Your task to perform on an android device: Show me recent news Image 0: 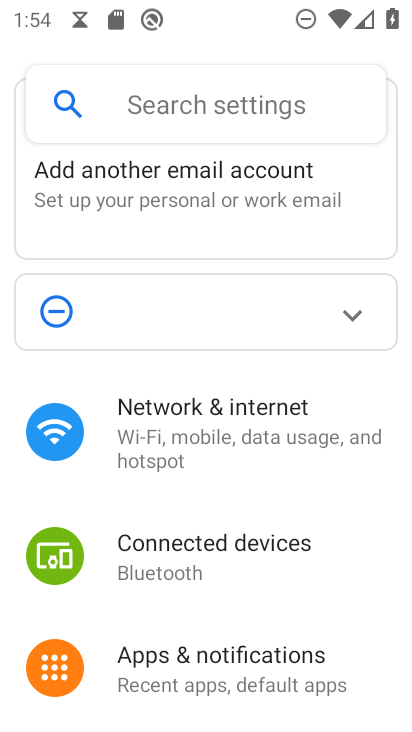
Step 0: press home button
Your task to perform on an android device: Show me recent news Image 1: 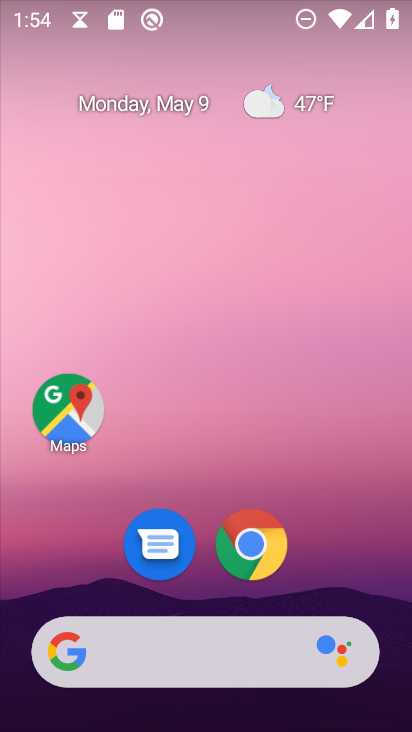
Step 1: drag from (375, 512) to (402, 69)
Your task to perform on an android device: Show me recent news Image 2: 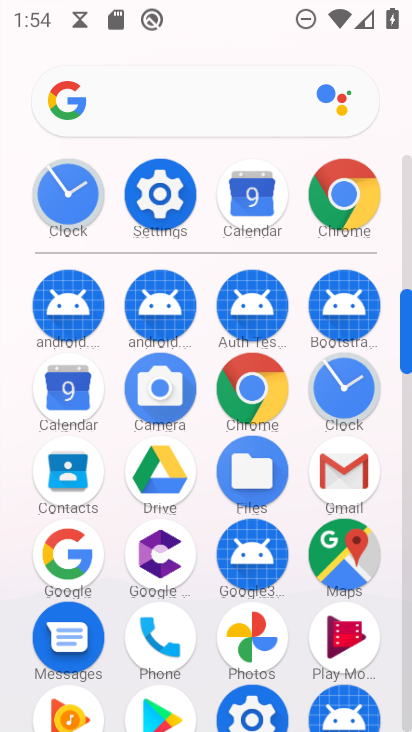
Step 2: click (346, 206)
Your task to perform on an android device: Show me recent news Image 3: 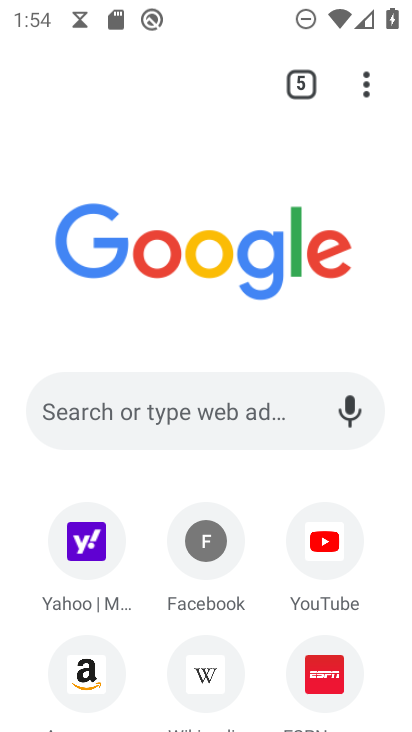
Step 3: task complete